Your task to perform on an android device: move an email to a new category in the gmail app Image 0: 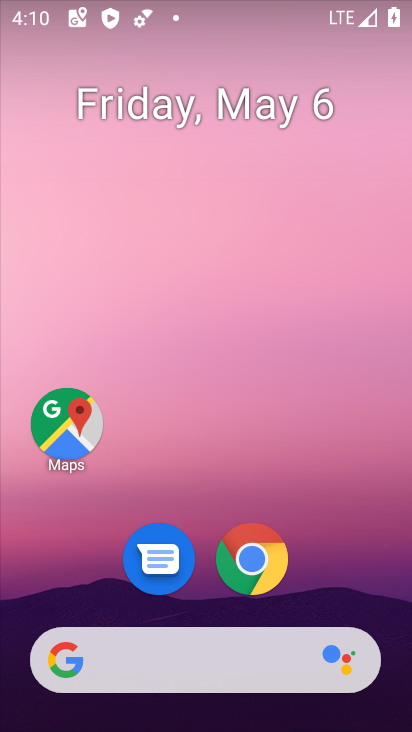
Step 0: drag from (214, 607) to (251, 235)
Your task to perform on an android device: move an email to a new category in the gmail app Image 1: 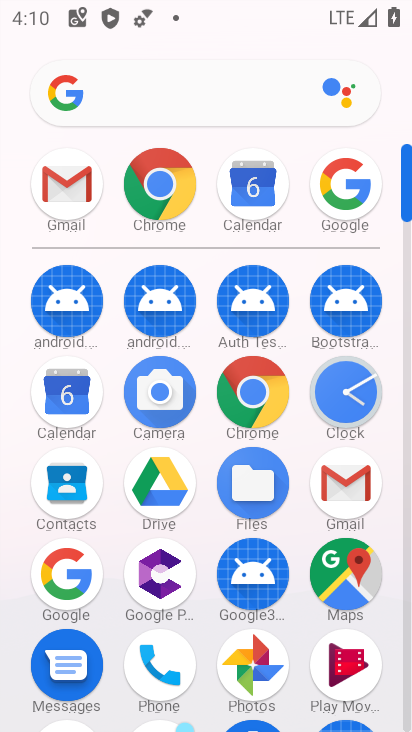
Step 1: click (349, 505)
Your task to perform on an android device: move an email to a new category in the gmail app Image 2: 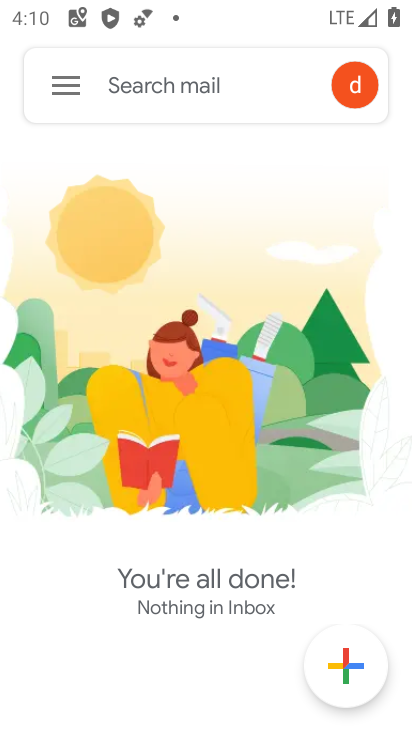
Step 2: click (79, 77)
Your task to perform on an android device: move an email to a new category in the gmail app Image 3: 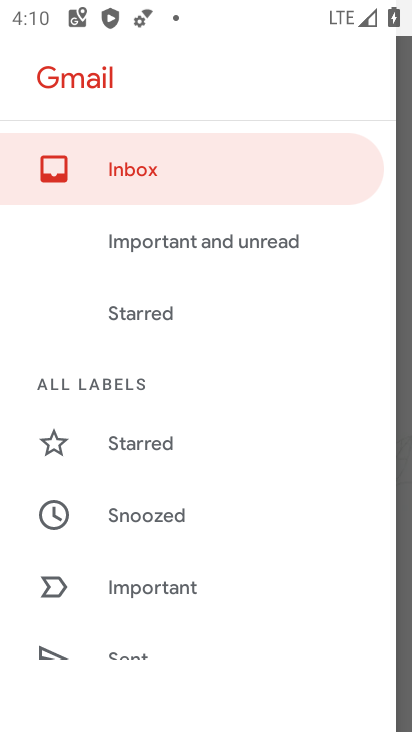
Step 3: task complete